Your task to perform on an android device: turn on sleep mode Image 0: 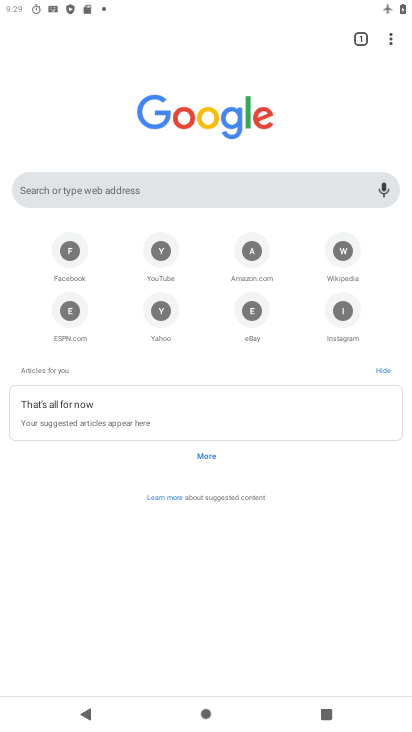
Step 0: press home button
Your task to perform on an android device: turn on sleep mode Image 1: 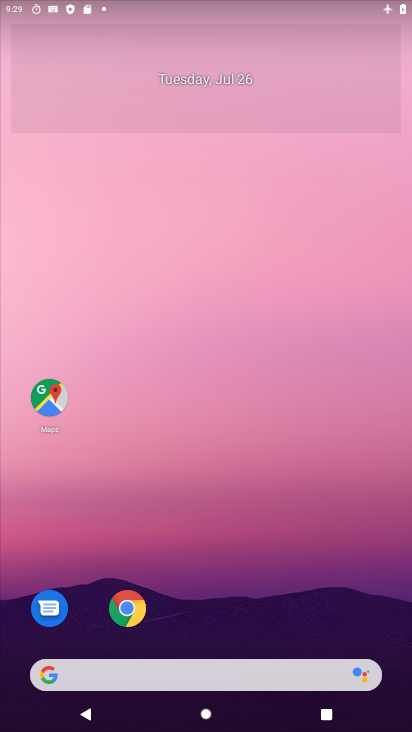
Step 1: drag from (205, 601) to (208, 170)
Your task to perform on an android device: turn on sleep mode Image 2: 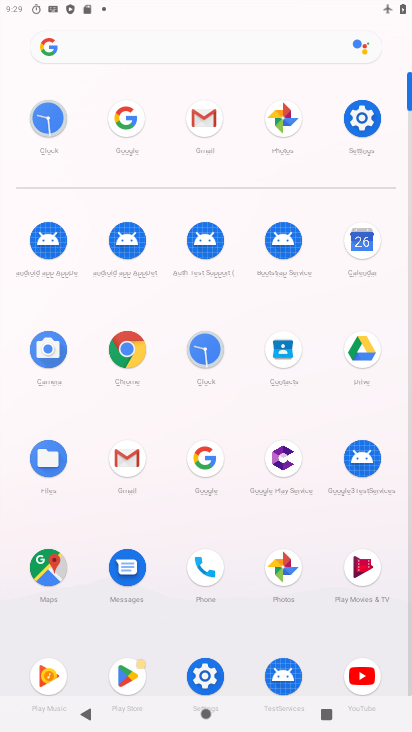
Step 2: click (357, 138)
Your task to perform on an android device: turn on sleep mode Image 3: 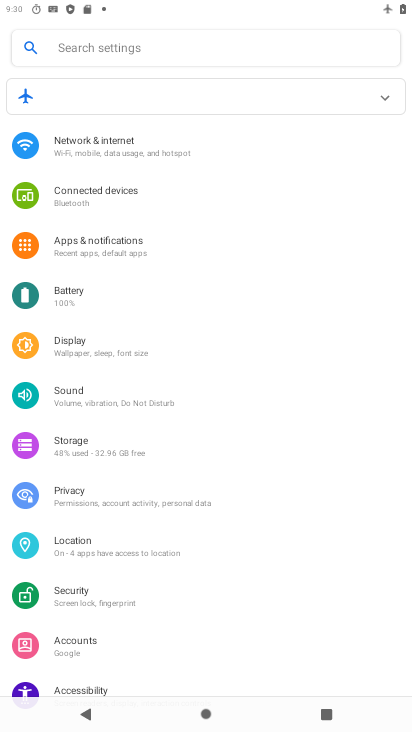
Step 3: click (118, 355)
Your task to perform on an android device: turn on sleep mode Image 4: 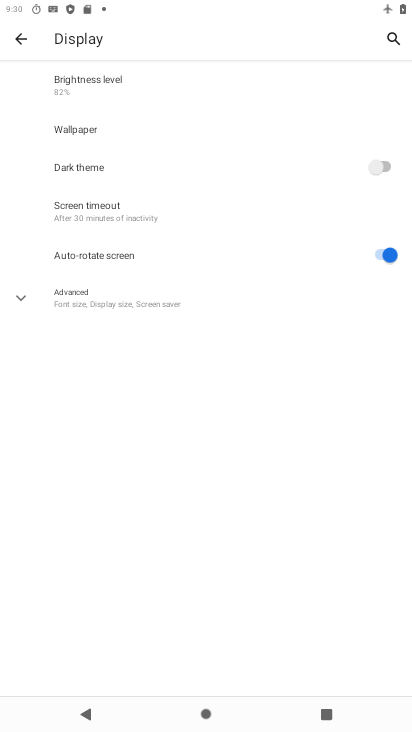
Step 4: click (153, 208)
Your task to perform on an android device: turn on sleep mode Image 5: 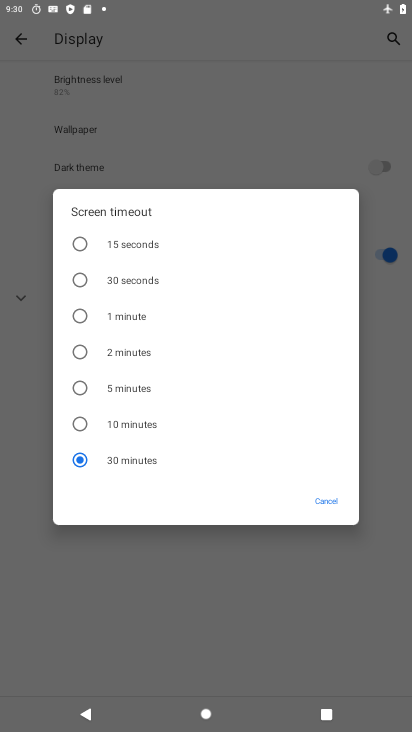
Step 5: click (119, 281)
Your task to perform on an android device: turn on sleep mode Image 6: 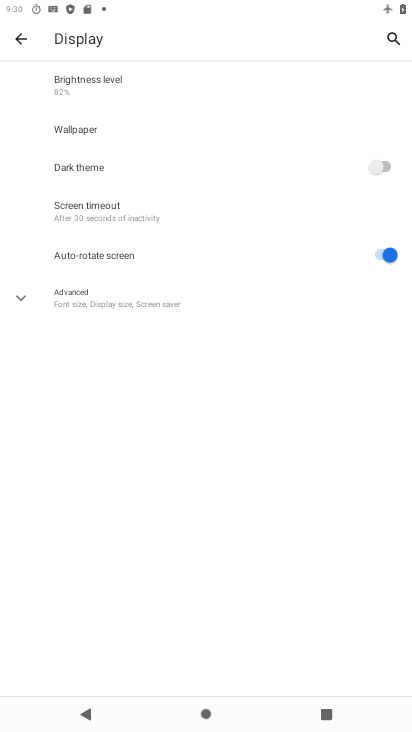
Step 6: task complete